Your task to perform on an android device: Search for Italian restaurants on Maps Image 0: 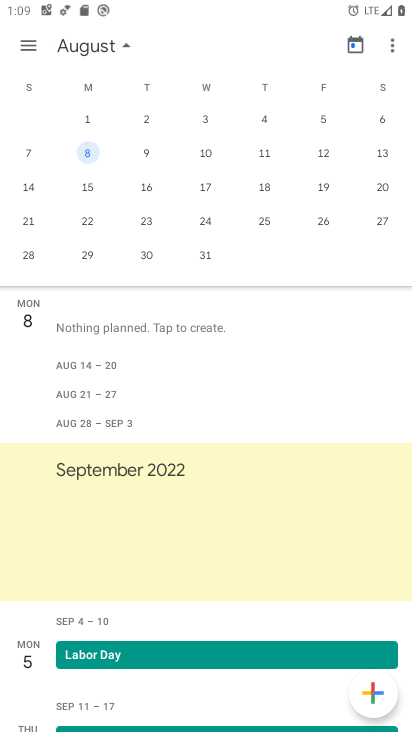
Step 0: press home button
Your task to perform on an android device: Search for Italian restaurants on Maps Image 1: 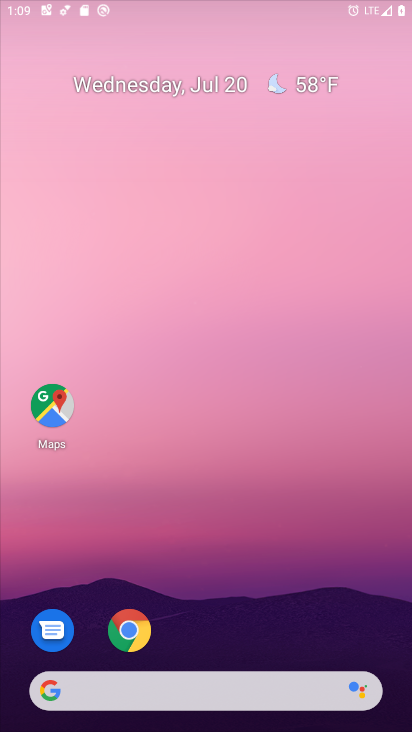
Step 1: drag from (226, 152) to (280, 25)
Your task to perform on an android device: Search for Italian restaurants on Maps Image 2: 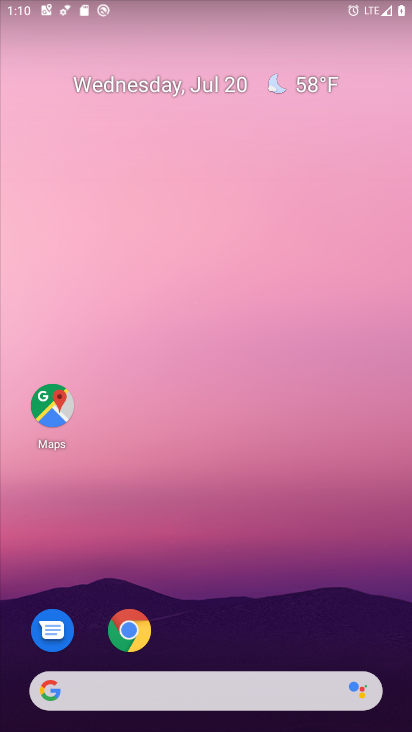
Step 2: drag from (295, 512) to (334, 112)
Your task to perform on an android device: Search for Italian restaurants on Maps Image 3: 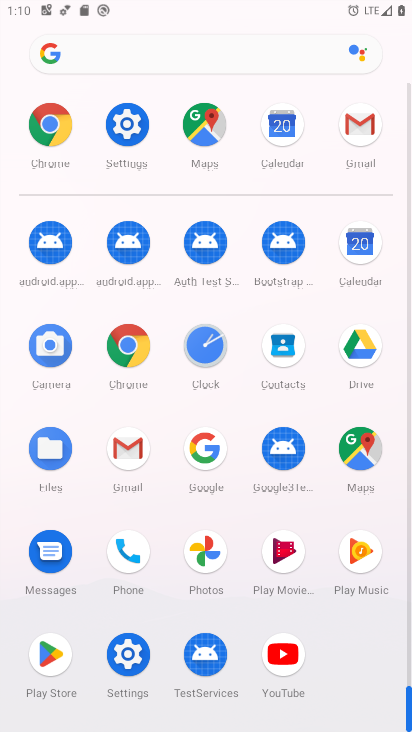
Step 3: drag from (199, 452) to (258, 112)
Your task to perform on an android device: Search for Italian restaurants on Maps Image 4: 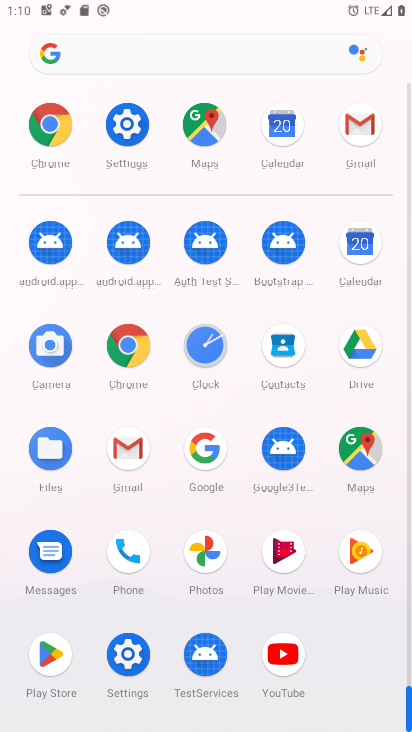
Step 4: click (363, 468)
Your task to perform on an android device: Search for Italian restaurants on Maps Image 5: 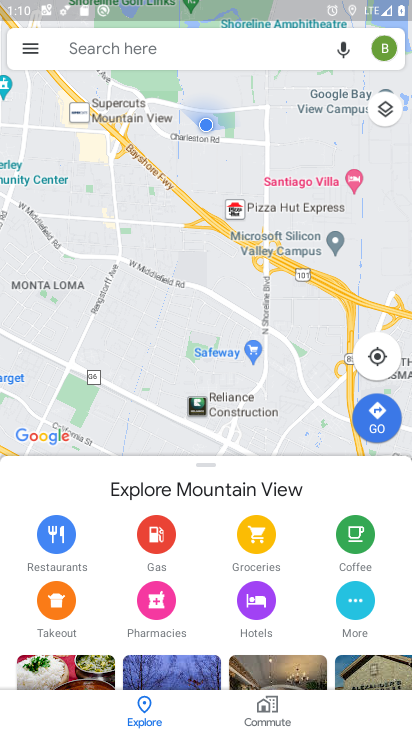
Step 5: click (244, 47)
Your task to perform on an android device: Search for Italian restaurants on Maps Image 6: 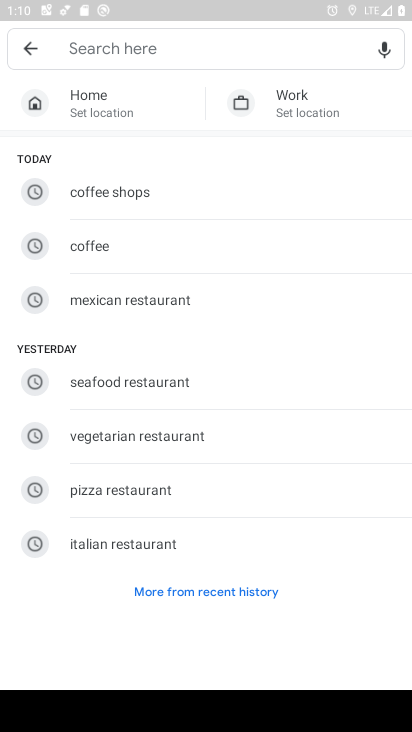
Step 6: click (177, 543)
Your task to perform on an android device: Search for Italian restaurants on Maps Image 7: 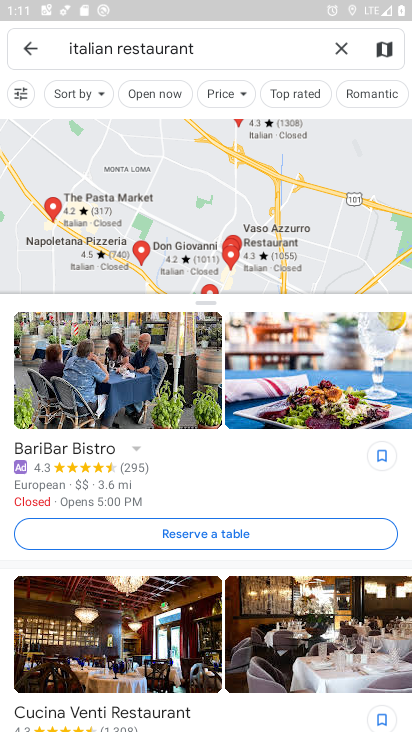
Step 7: task complete